Your task to perform on an android device: set an alarm Image 0: 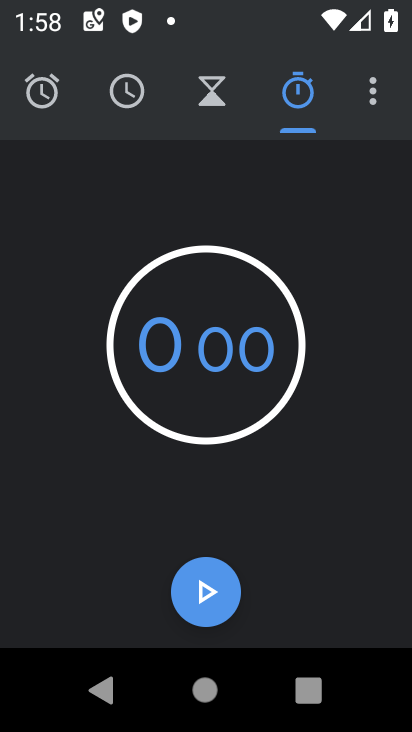
Step 0: click (201, 101)
Your task to perform on an android device: set an alarm Image 1: 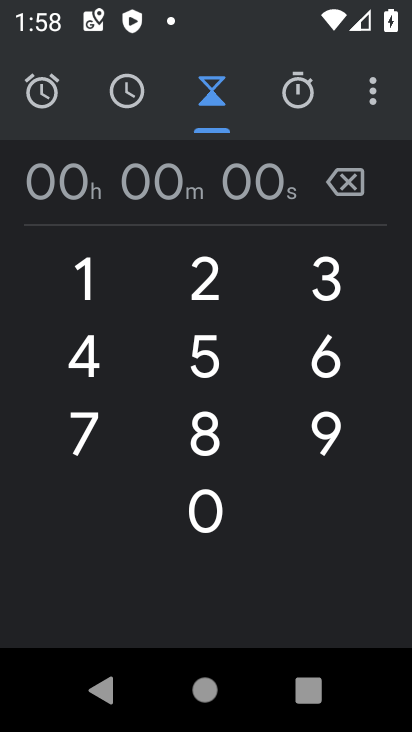
Step 1: click (186, 279)
Your task to perform on an android device: set an alarm Image 2: 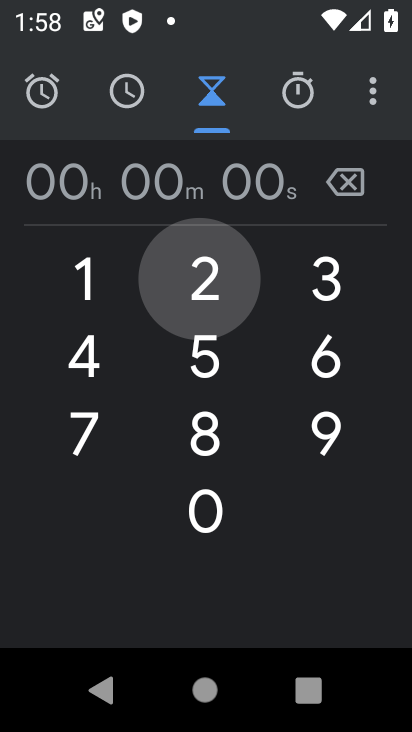
Step 2: click (215, 363)
Your task to perform on an android device: set an alarm Image 3: 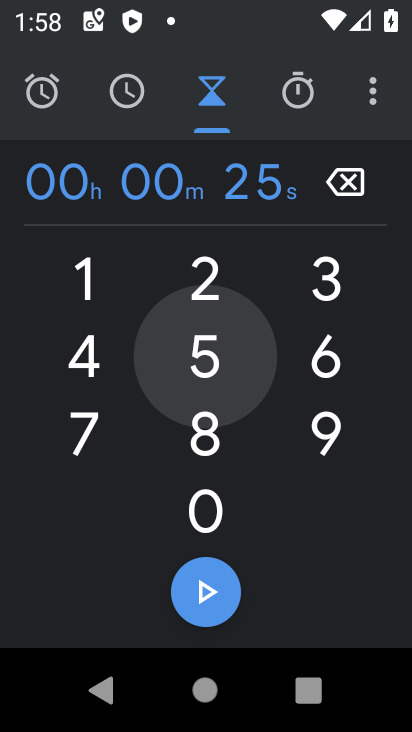
Step 3: click (203, 302)
Your task to perform on an android device: set an alarm Image 4: 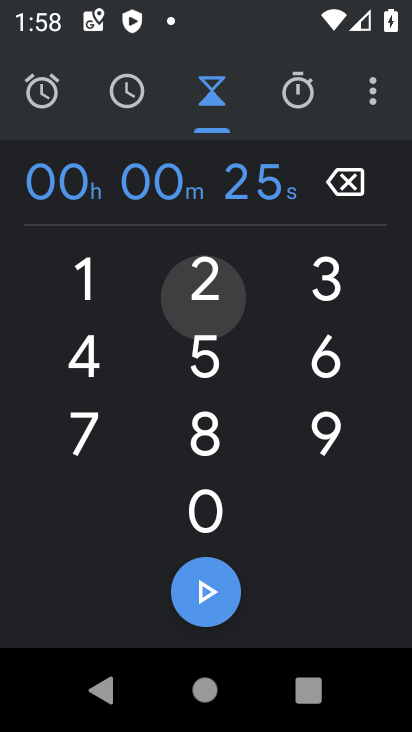
Step 4: click (202, 375)
Your task to perform on an android device: set an alarm Image 5: 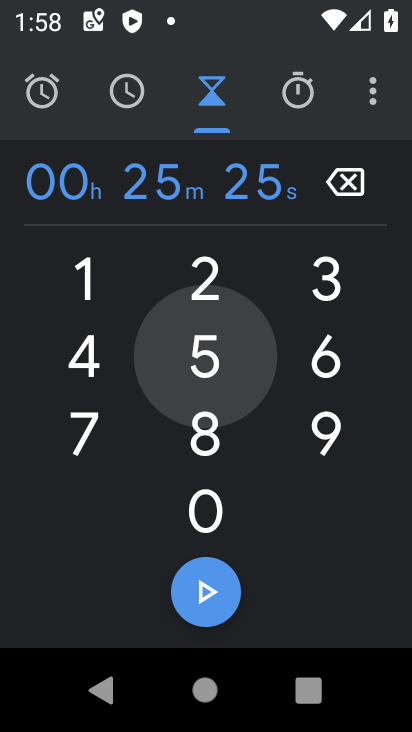
Step 5: drag from (201, 306) to (213, 368)
Your task to perform on an android device: set an alarm Image 6: 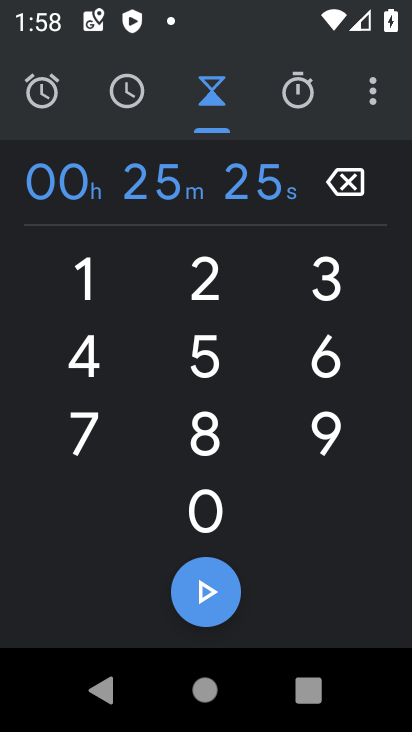
Step 6: click (216, 323)
Your task to perform on an android device: set an alarm Image 7: 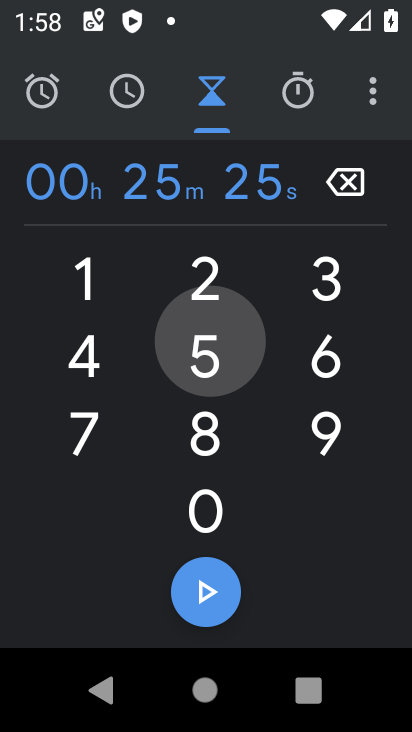
Step 7: click (208, 370)
Your task to perform on an android device: set an alarm Image 8: 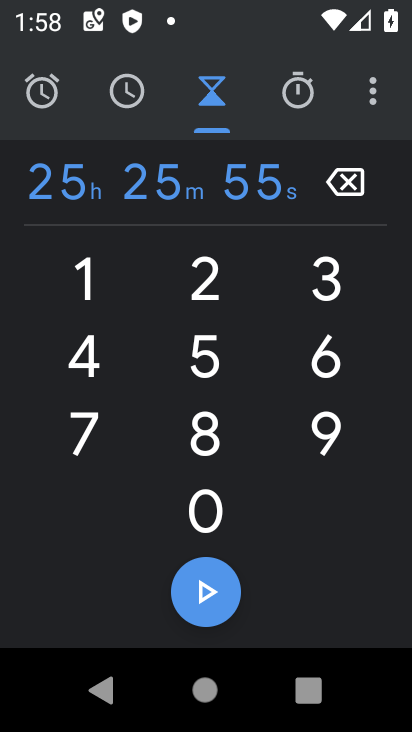
Step 8: click (209, 594)
Your task to perform on an android device: set an alarm Image 9: 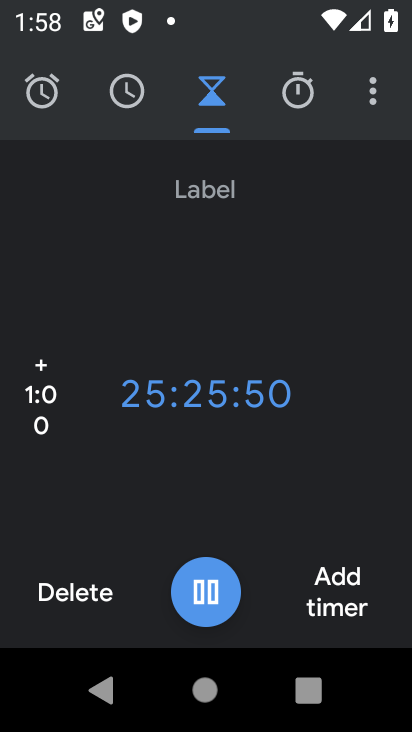
Step 9: task complete